Your task to perform on an android device: Add bose soundlink mini to the cart on amazon Image 0: 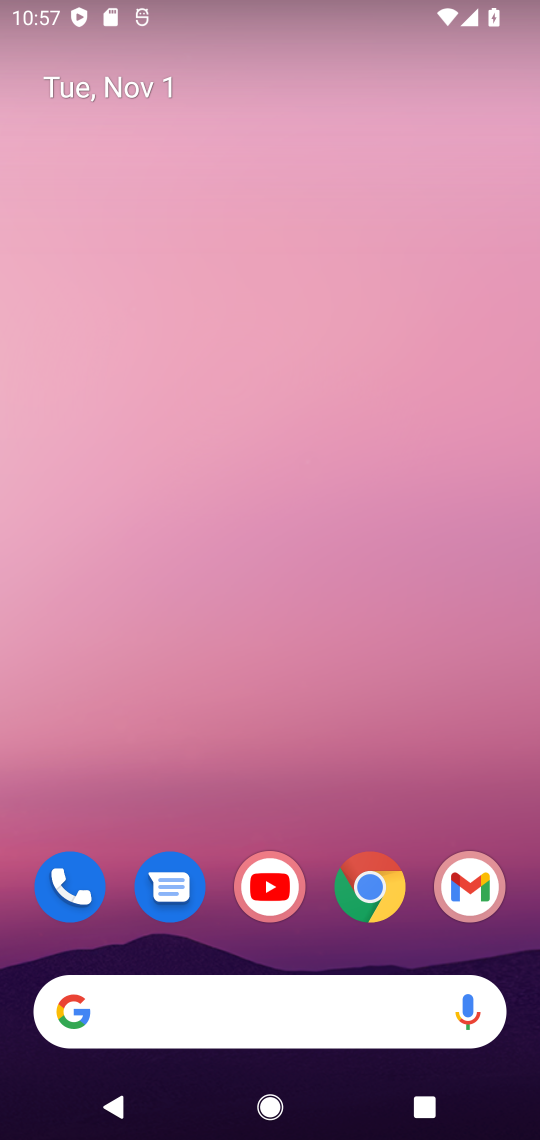
Step 0: click (301, 1070)
Your task to perform on an android device: Add bose soundlink mini to the cart on amazon Image 1: 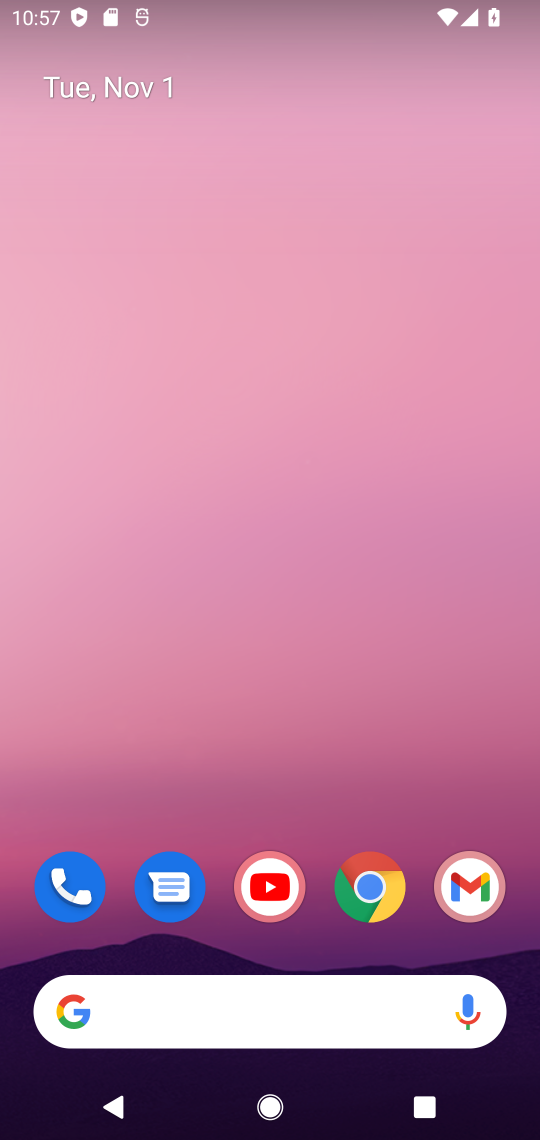
Step 1: click (366, 880)
Your task to perform on an android device: Add bose soundlink mini to the cart on amazon Image 2: 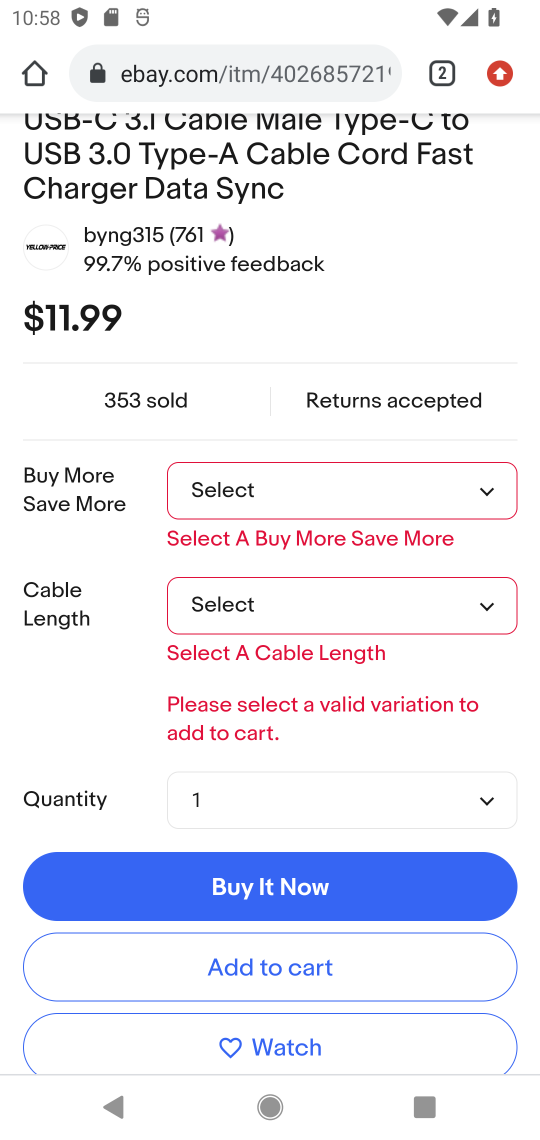
Step 2: click (284, 78)
Your task to perform on an android device: Add bose soundlink mini to the cart on amazon Image 3: 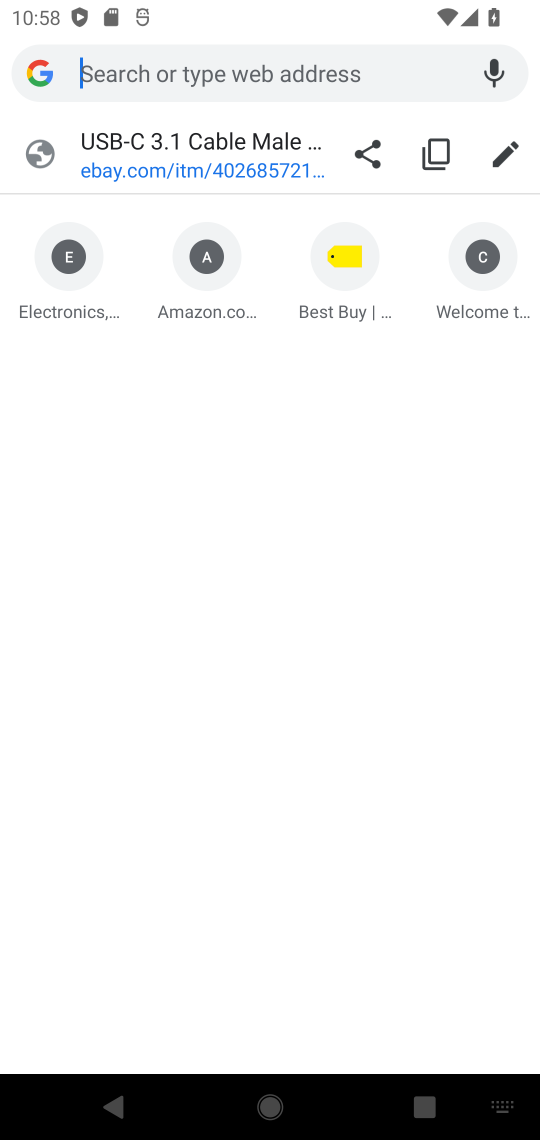
Step 3: click (210, 272)
Your task to perform on an android device: Add bose soundlink mini to the cart on amazon Image 4: 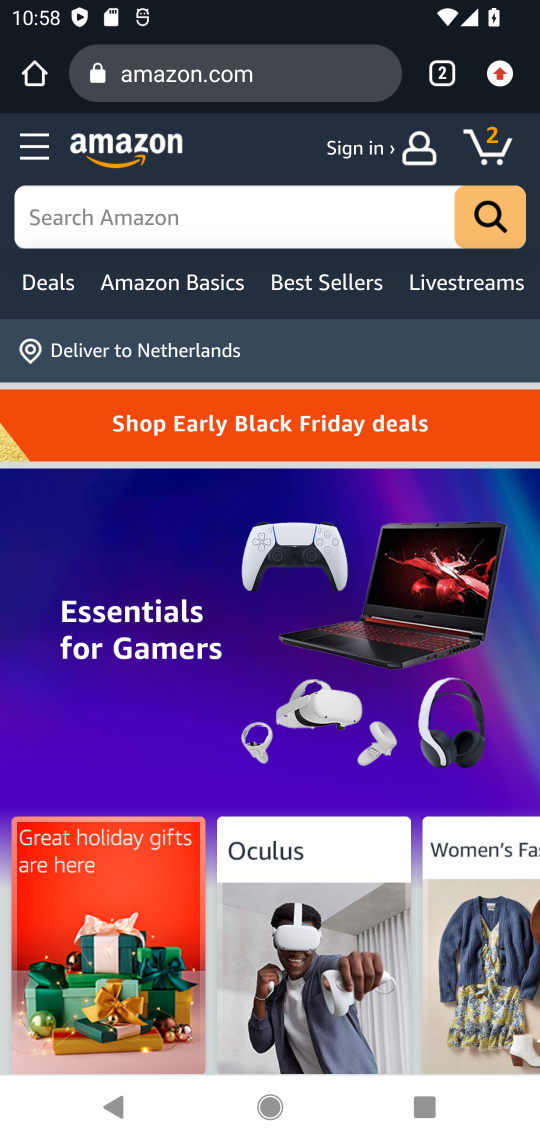
Step 4: click (294, 221)
Your task to perform on an android device: Add bose soundlink mini to the cart on amazon Image 5: 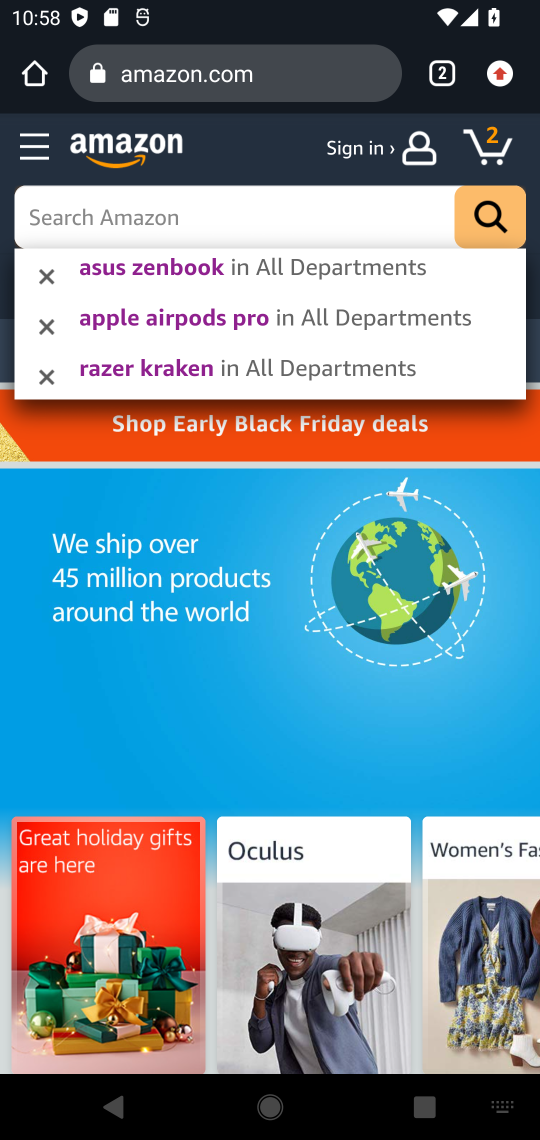
Step 5: type " bose soundlink mini "
Your task to perform on an android device: Add bose soundlink mini to the cart on amazon Image 6: 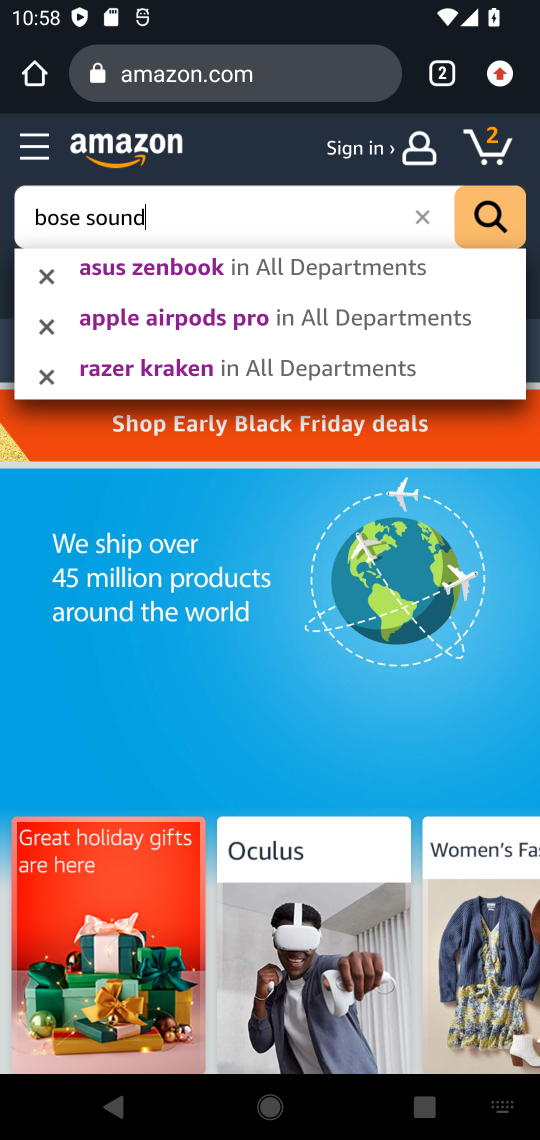
Step 6: press enter
Your task to perform on an android device: Add bose soundlink mini to the cart on amazon Image 7: 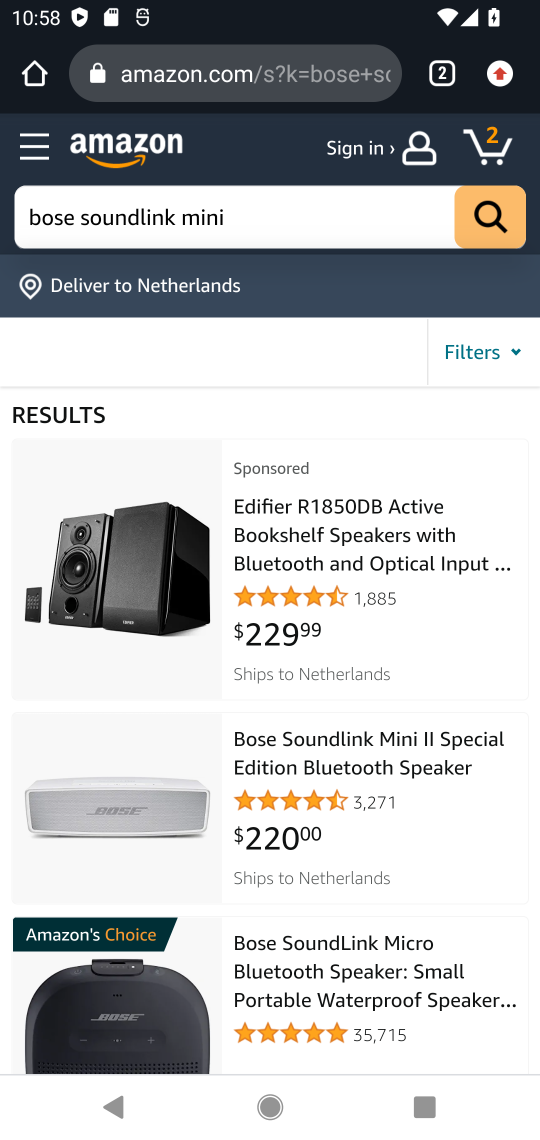
Step 7: click (173, 573)
Your task to perform on an android device: Add bose soundlink mini to the cart on amazon Image 8: 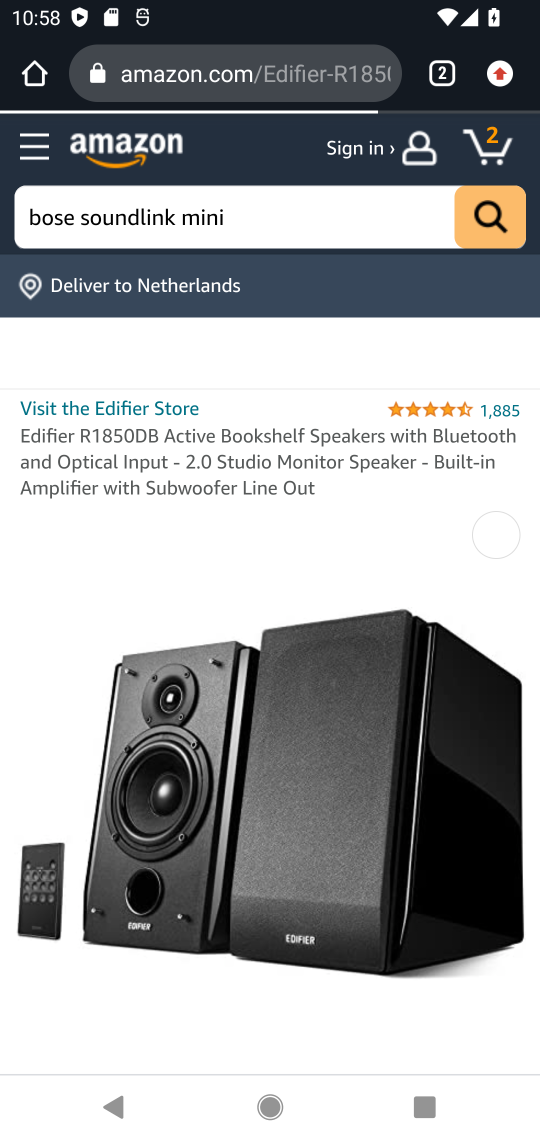
Step 8: press back button
Your task to perform on an android device: Add bose soundlink mini to the cart on amazon Image 9: 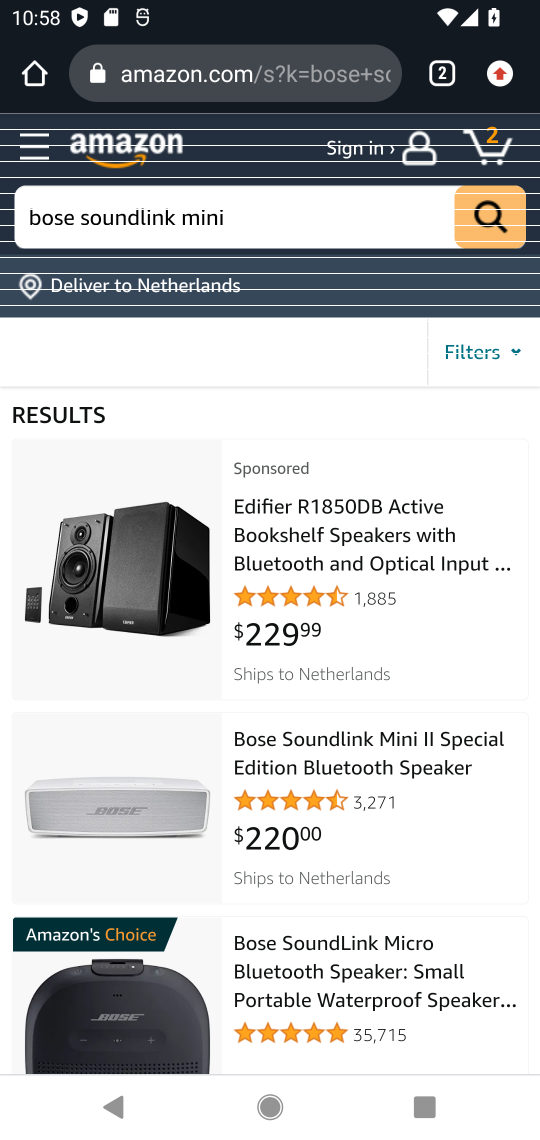
Step 9: click (103, 791)
Your task to perform on an android device: Add bose soundlink mini to the cart on amazon Image 10: 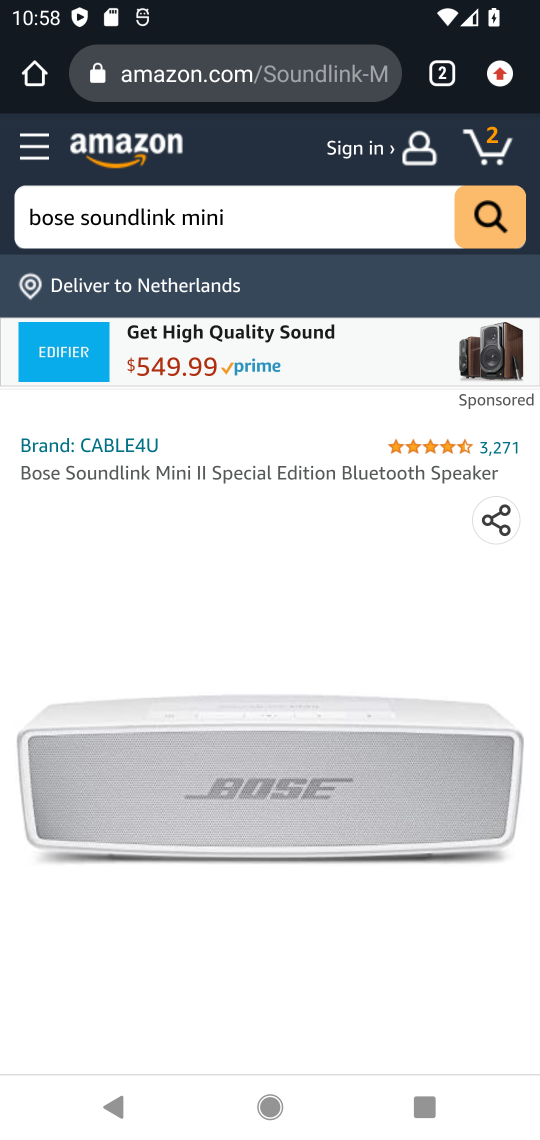
Step 10: drag from (408, 869) to (301, 371)
Your task to perform on an android device: Add bose soundlink mini to the cart on amazon Image 11: 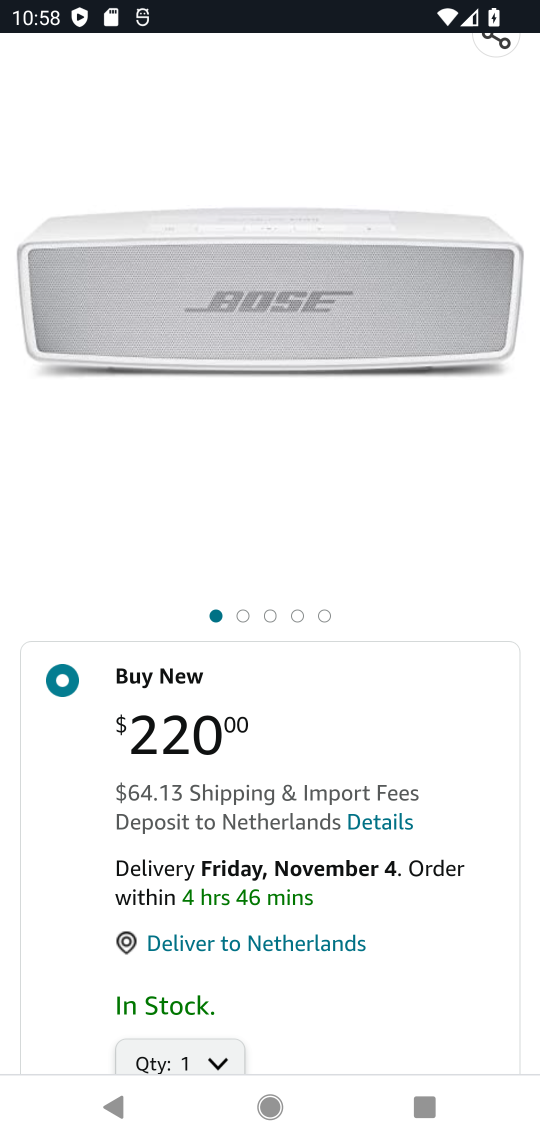
Step 11: drag from (333, 906) to (274, 392)
Your task to perform on an android device: Add bose soundlink mini to the cart on amazon Image 12: 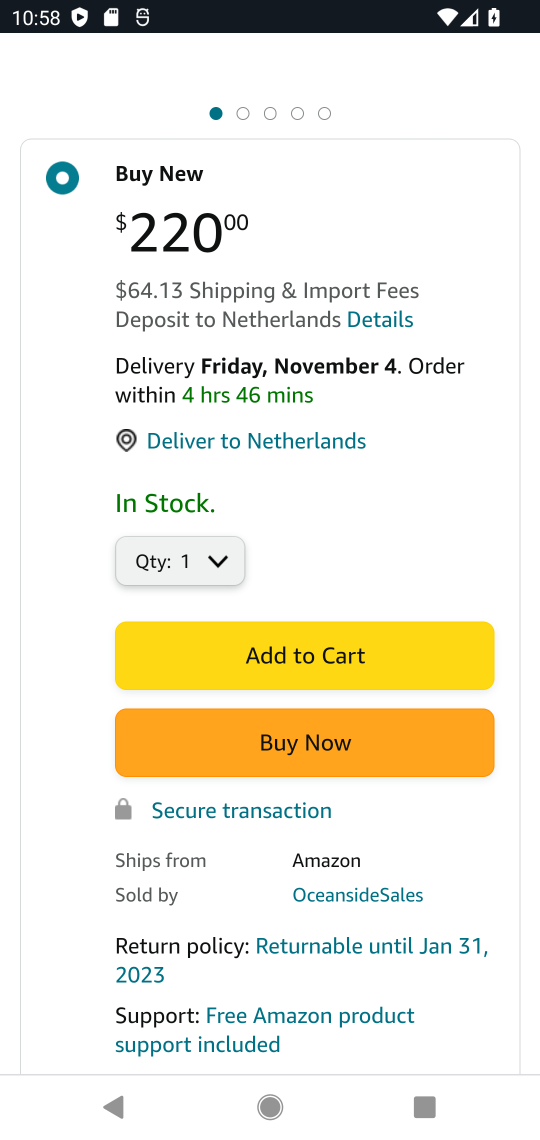
Step 12: click (347, 662)
Your task to perform on an android device: Add bose soundlink mini to the cart on amazon Image 13: 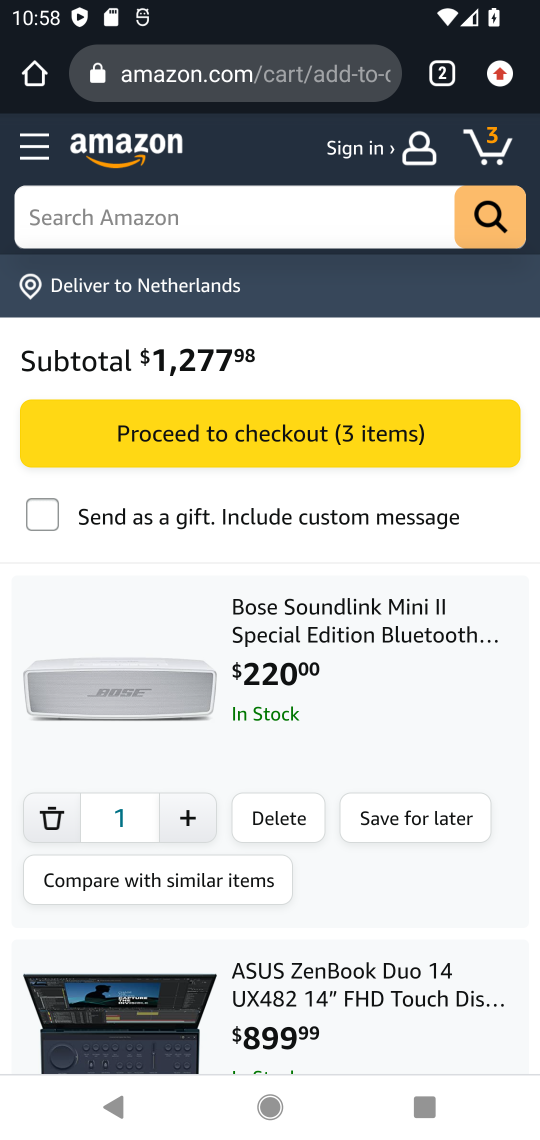
Step 13: task complete